Your task to perform on an android device: check android version Image 0: 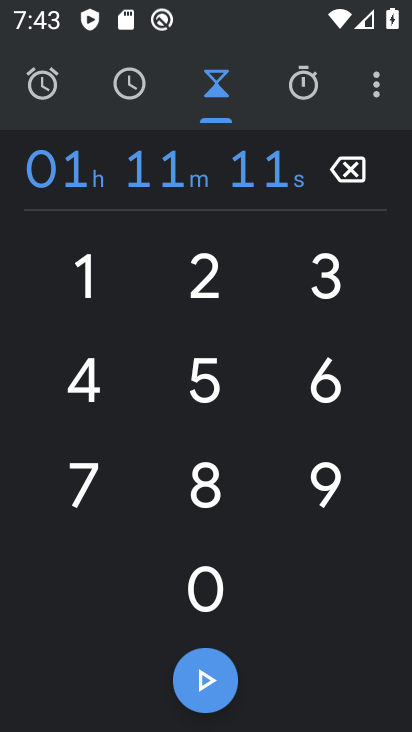
Step 0: press home button
Your task to perform on an android device: check android version Image 1: 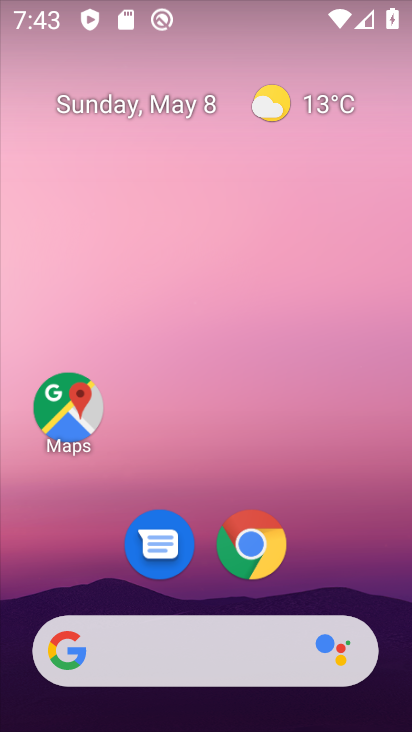
Step 1: drag from (327, 566) to (244, 229)
Your task to perform on an android device: check android version Image 2: 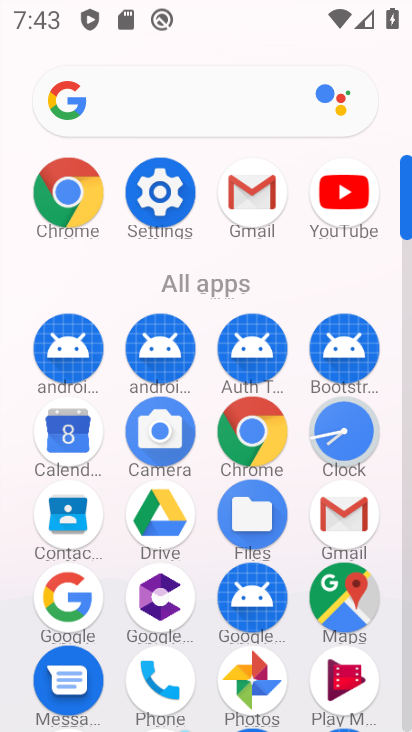
Step 2: click (158, 203)
Your task to perform on an android device: check android version Image 3: 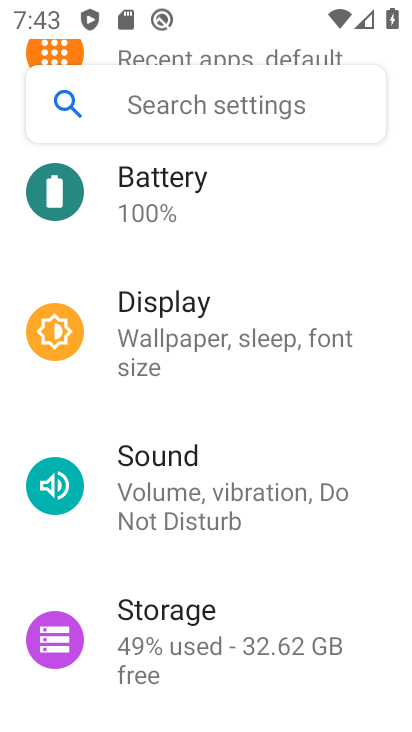
Step 3: drag from (246, 553) to (227, 295)
Your task to perform on an android device: check android version Image 4: 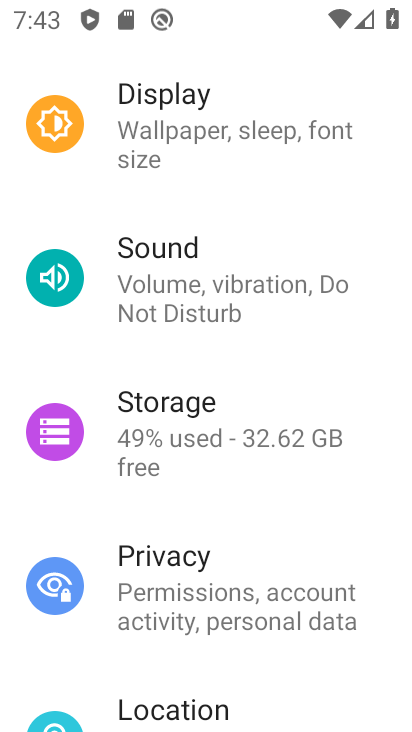
Step 4: drag from (259, 534) to (200, 214)
Your task to perform on an android device: check android version Image 5: 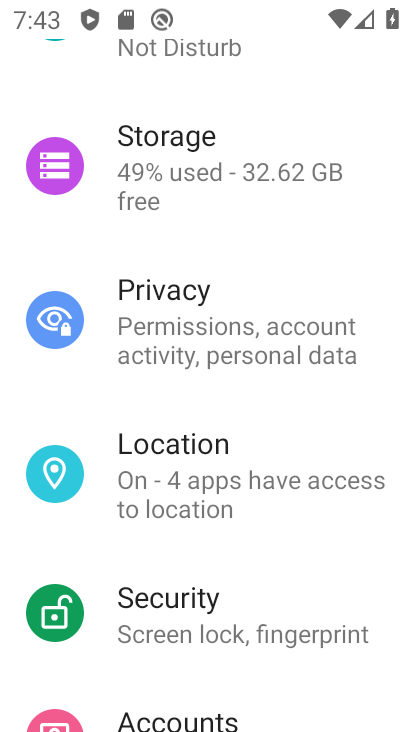
Step 5: drag from (223, 670) to (181, 338)
Your task to perform on an android device: check android version Image 6: 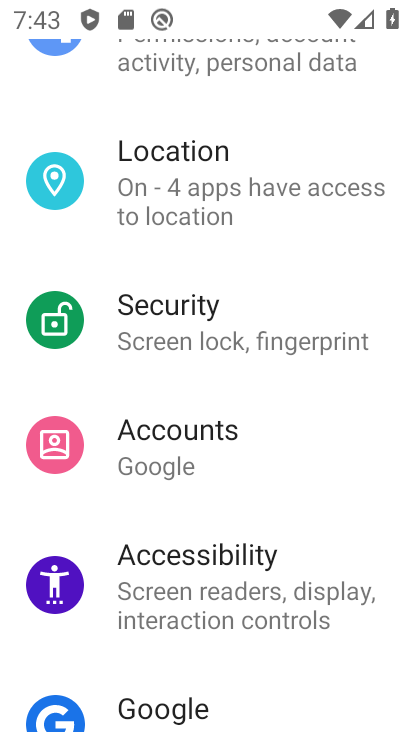
Step 6: drag from (242, 650) to (203, 343)
Your task to perform on an android device: check android version Image 7: 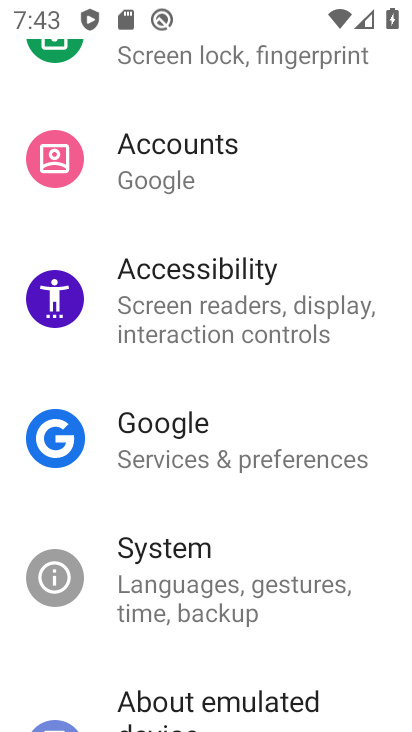
Step 7: drag from (228, 628) to (183, 226)
Your task to perform on an android device: check android version Image 8: 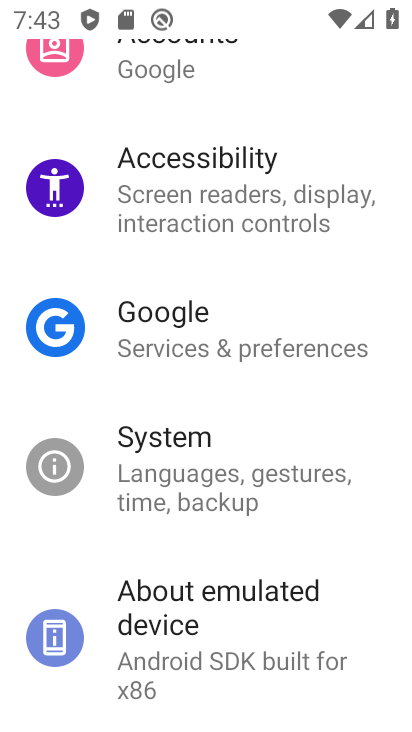
Step 8: click (147, 616)
Your task to perform on an android device: check android version Image 9: 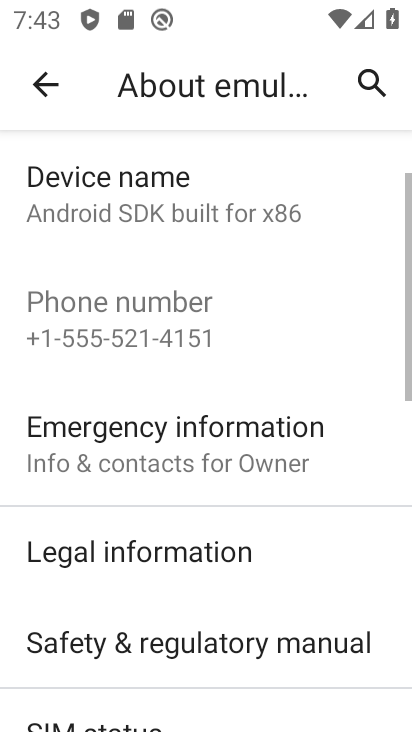
Step 9: task complete